Your task to perform on an android device: see tabs open on other devices in the chrome app Image 0: 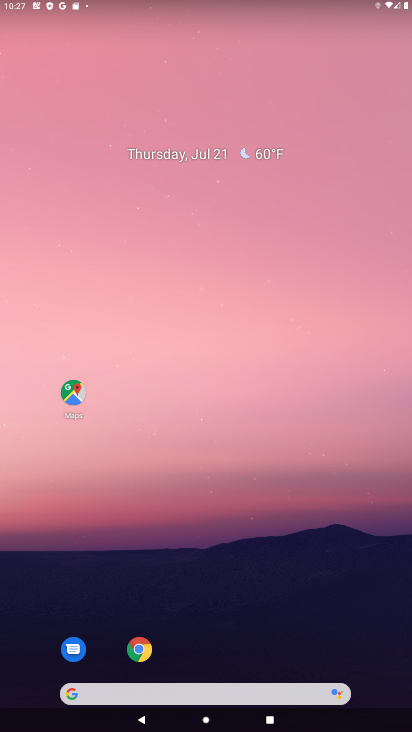
Step 0: click (139, 652)
Your task to perform on an android device: see tabs open on other devices in the chrome app Image 1: 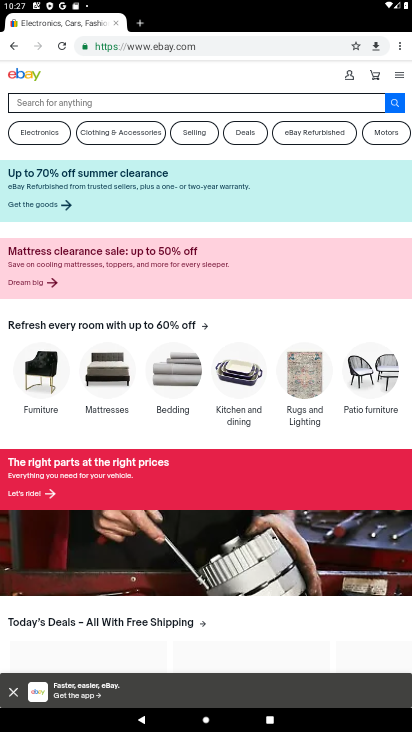
Step 1: click (399, 42)
Your task to perform on an android device: see tabs open on other devices in the chrome app Image 2: 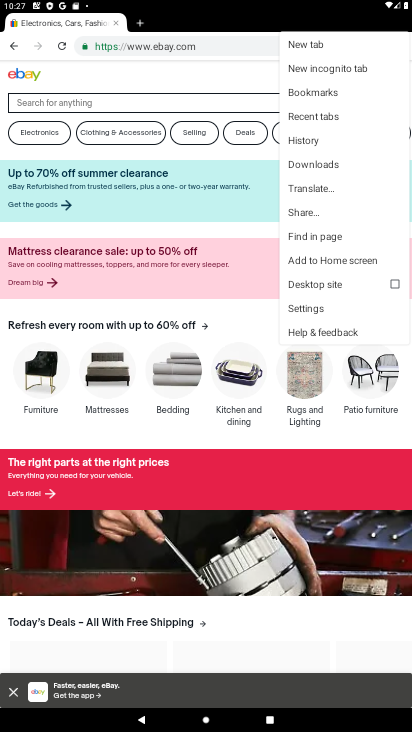
Step 2: click (329, 119)
Your task to perform on an android device: see tabs open on other devices in the chrome app Image 3: 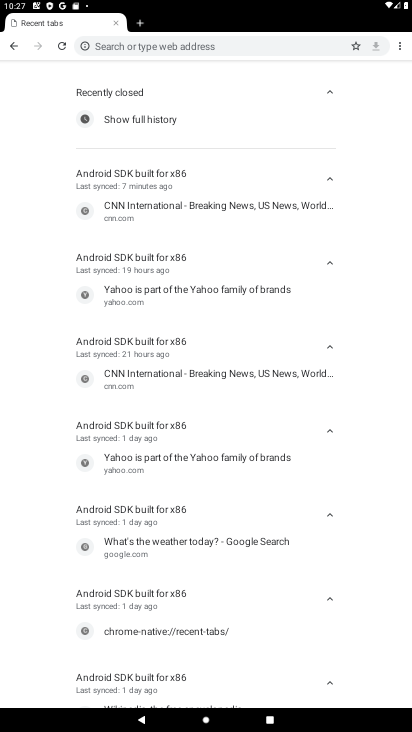
Step 3: task complete